Your task to perform on an android device: Search for the best movies of 2019  Image 0: 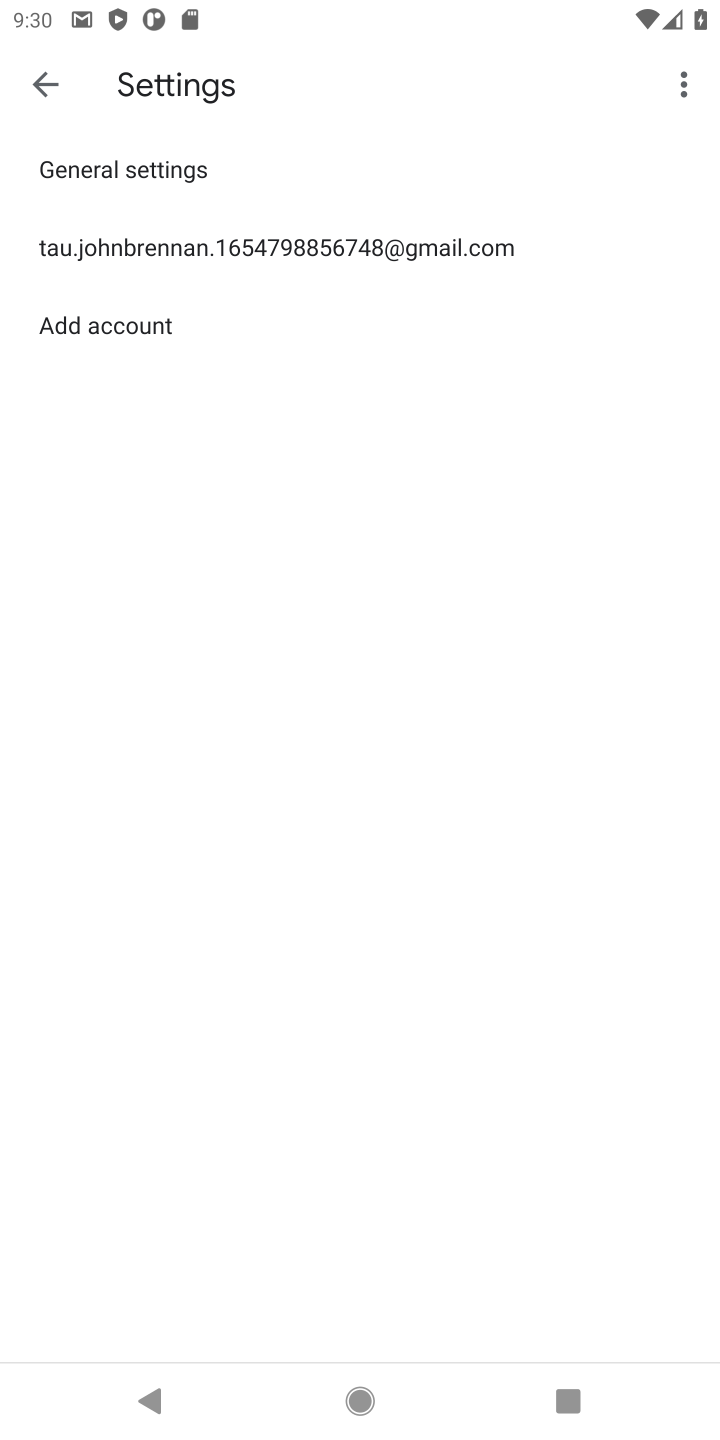
Step 0: press home button
Your task to perform on an android device: Search for the best movies of 2019  Image 1: 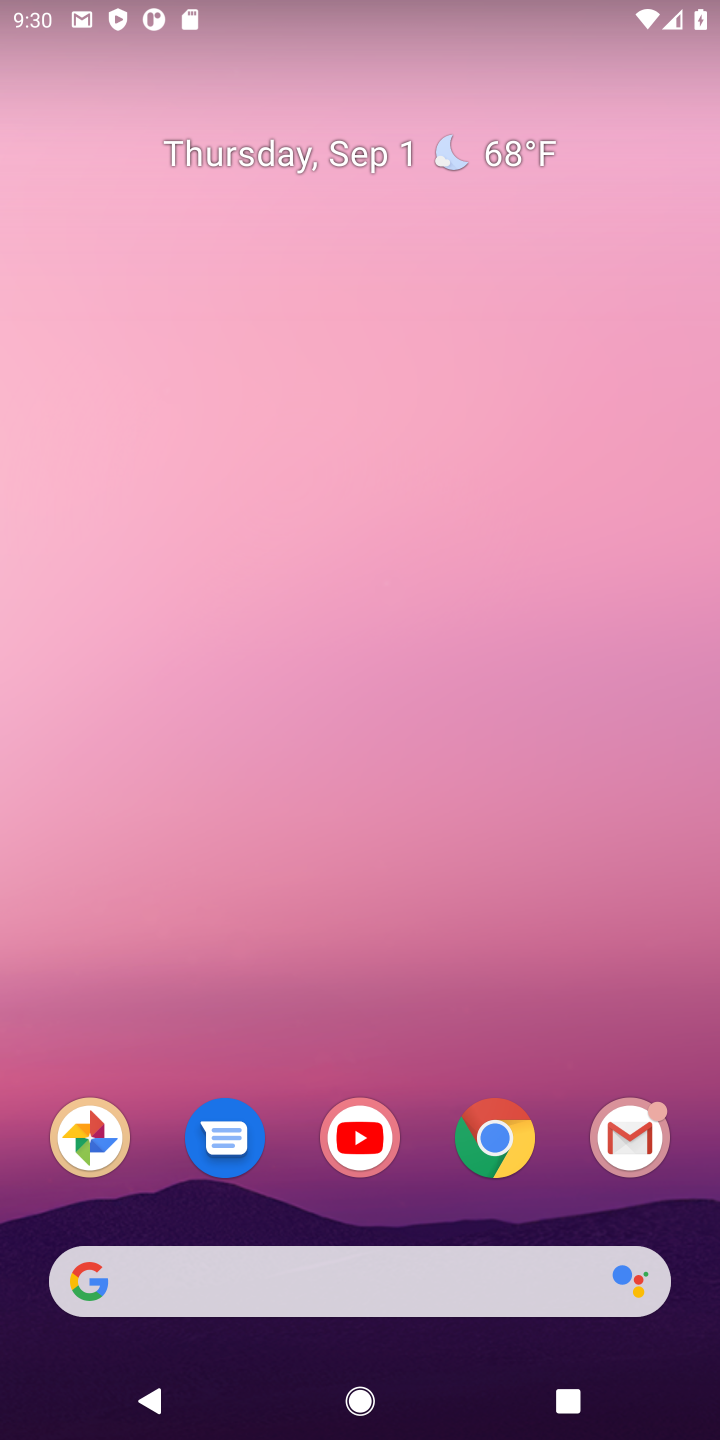
Step 1: click (494, 1131)
Your task to perform on an android device: Search for the best movies of 2019  Image 2: 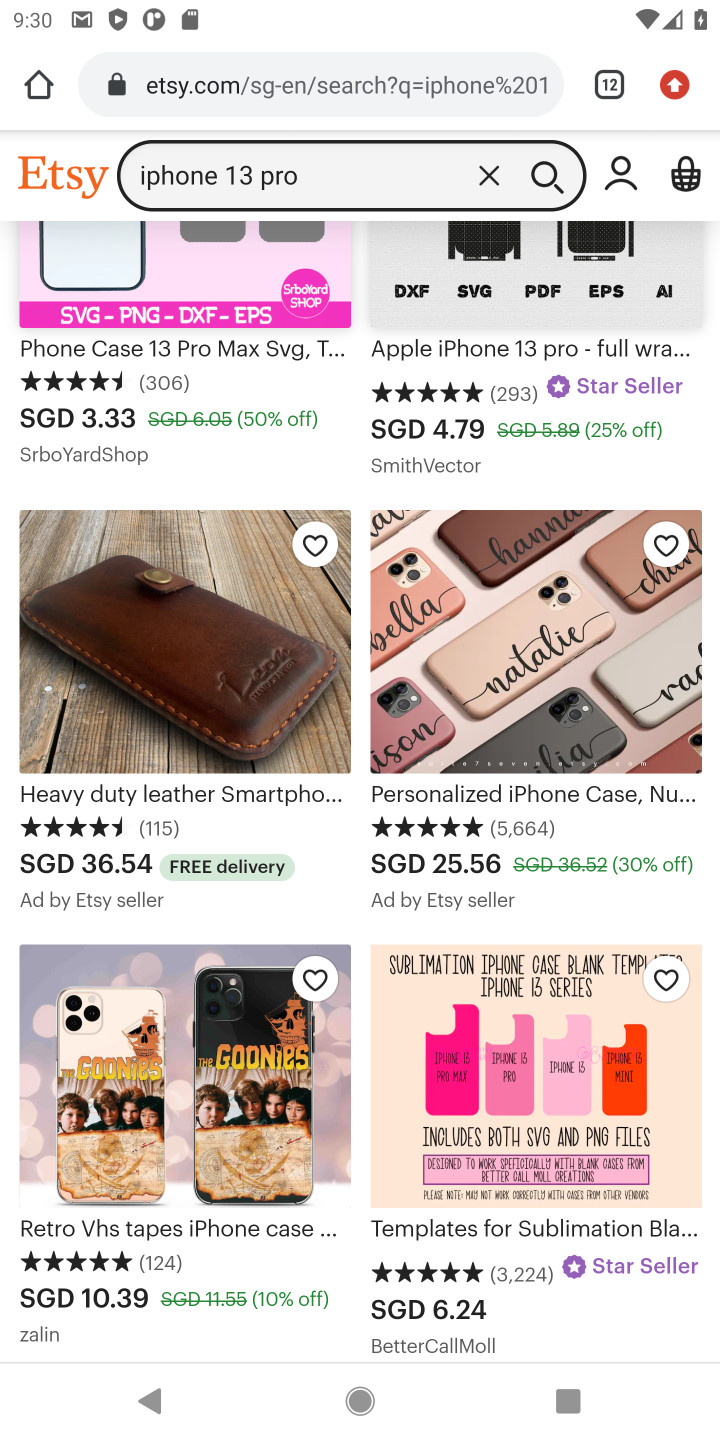
Step 2: click (613, 95)
Your task to perform on an android device: Search for the best movies of 2019  Image 3: 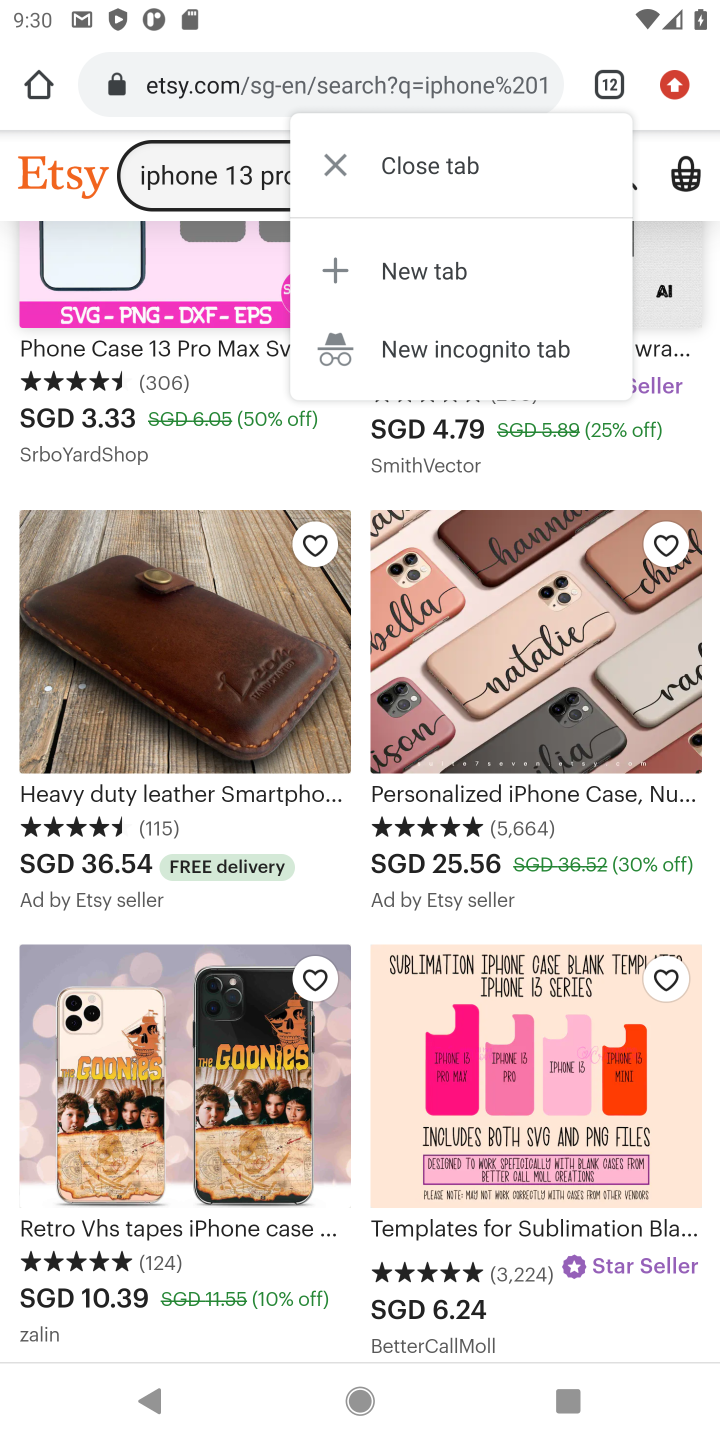
Step 3: click (457, 273)
Your task to perform on an android device: Search for the best movies of 2019  Image 4: 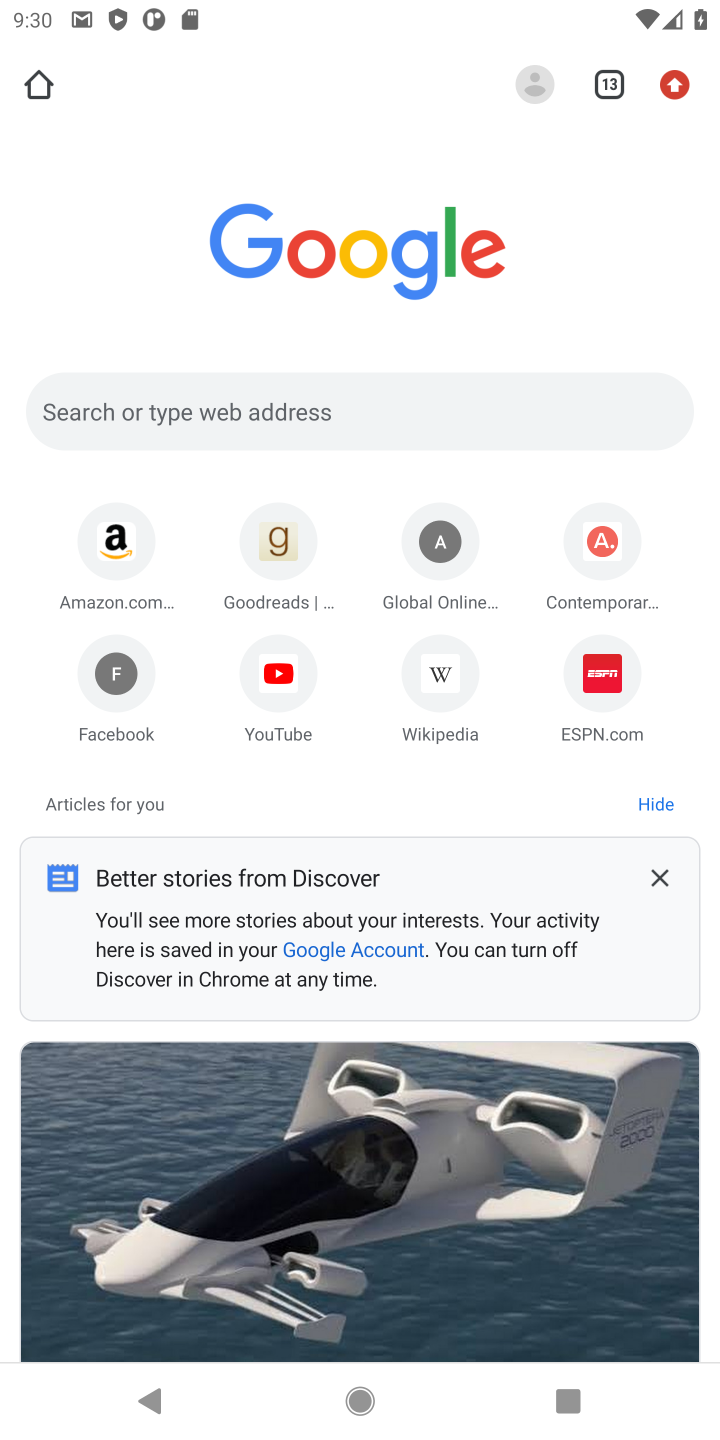
Step 4: click (358, 411)
Your task to perform on an android device: Search for the best movies of 2019  Image 5: 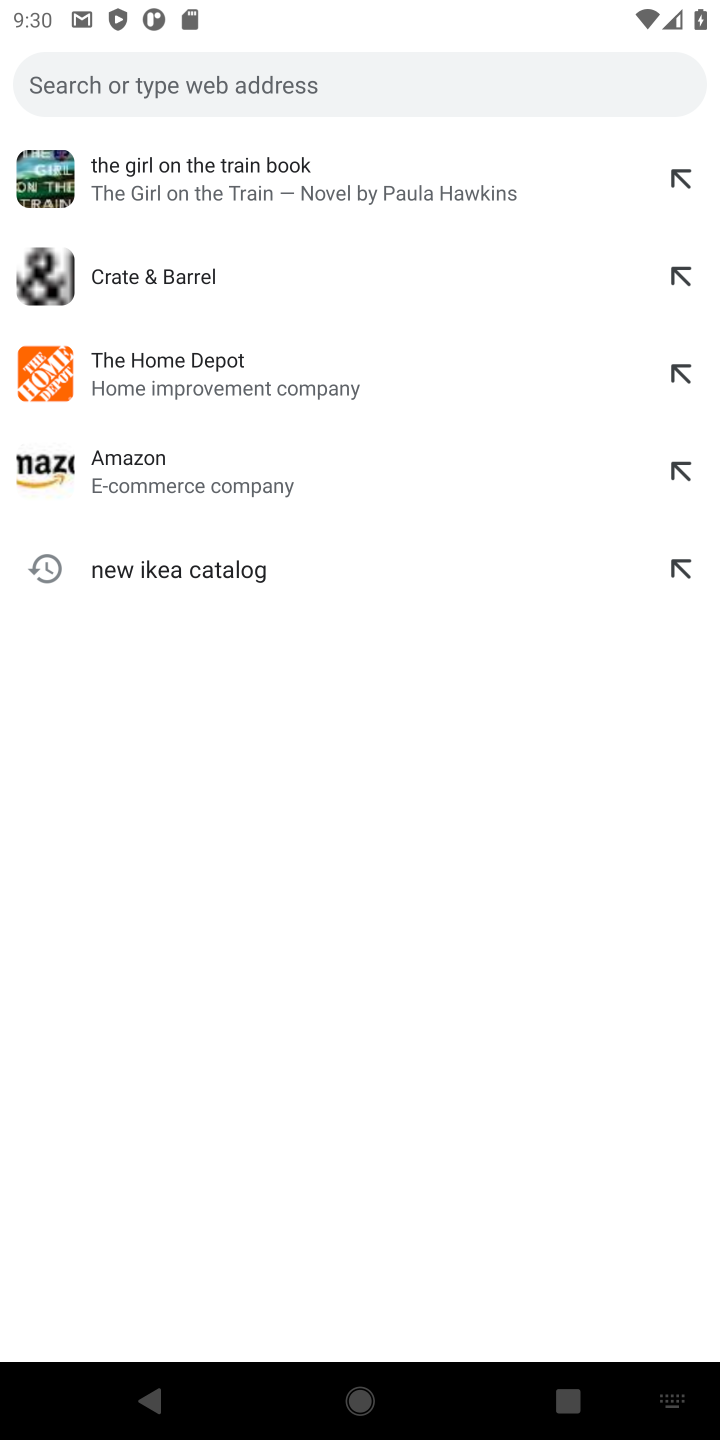
Step 5: type "the best movies of 2019"
Your task to perform on an android device: Search for the best movies of 2019  Image 6: 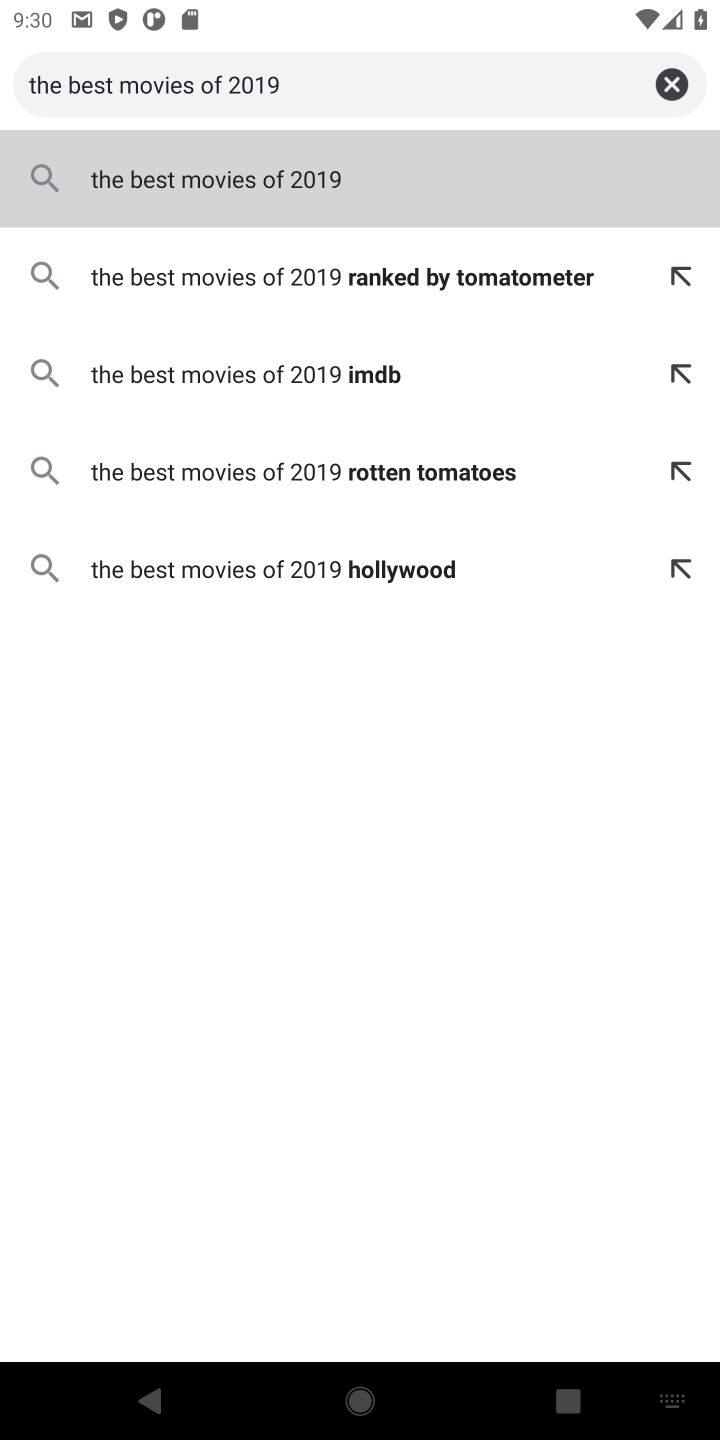
Step 6: type "the best movies of 2019"
Your task to perform on an android device: Search for the best movies of 2019  Image 7: 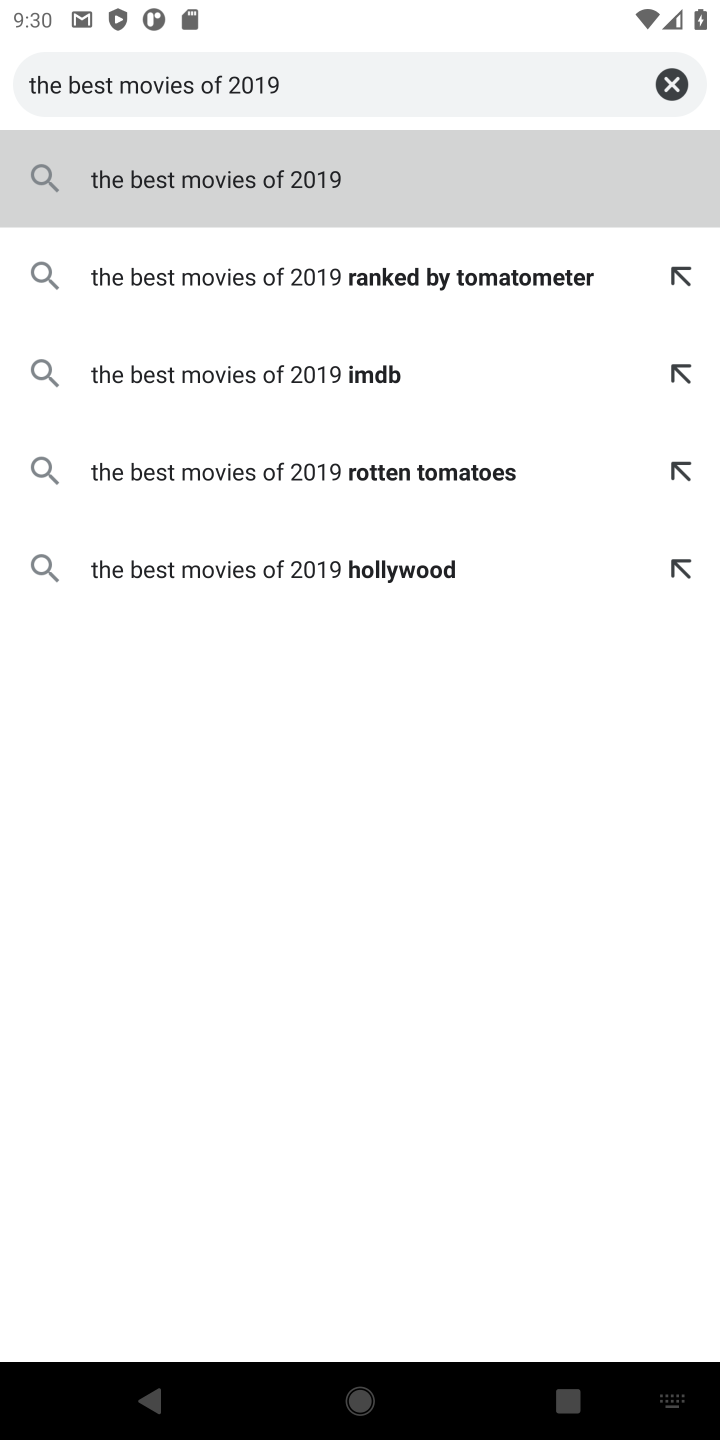
Step 7: click (223, 174)
Your task to perform on an android device: Search for the best movies of 2019  Image 8: 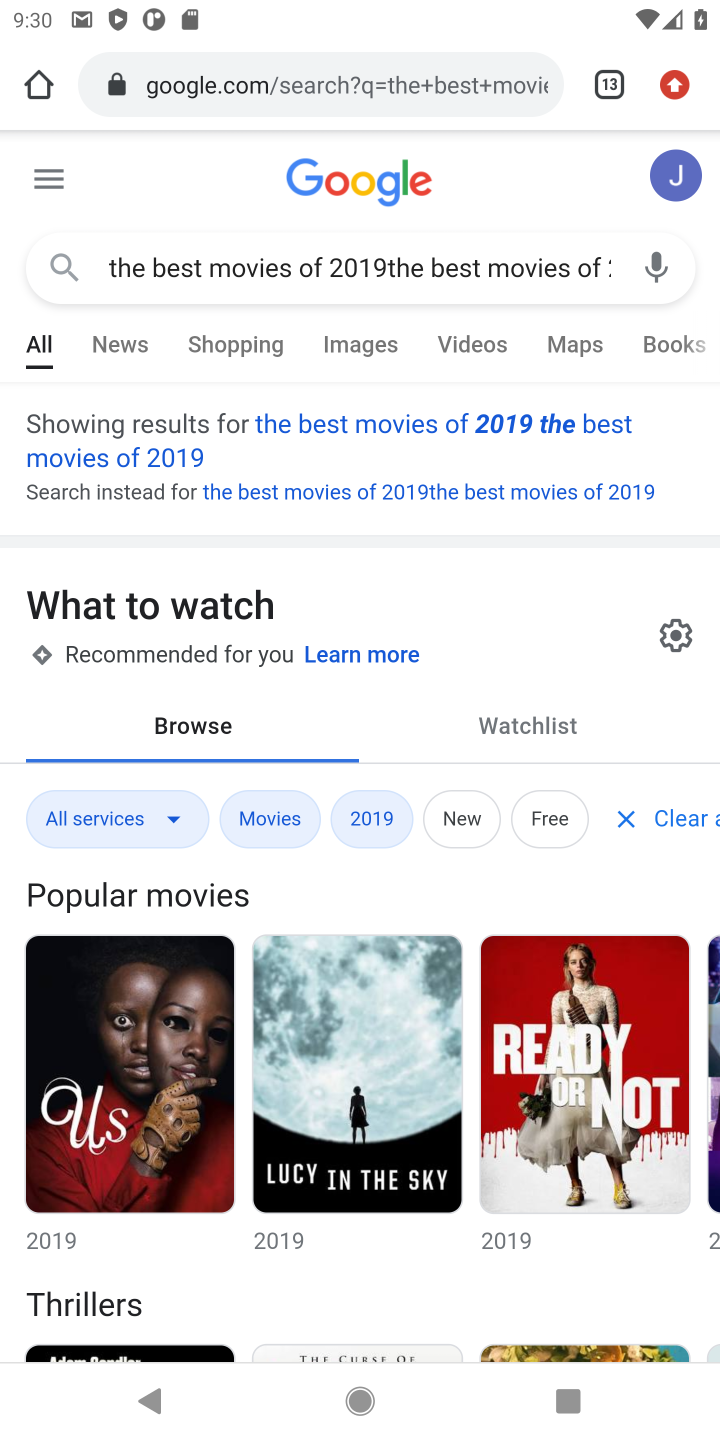
Step 8: task complete